Your task to perform on an android device: turn off picture-in-picture Image 0: 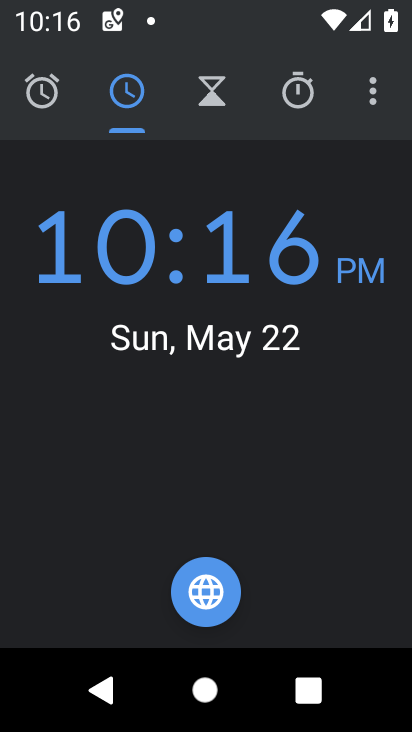
Step 0: press home button
Your task to perform on an android device: turn off picture-in-picture Image 1: 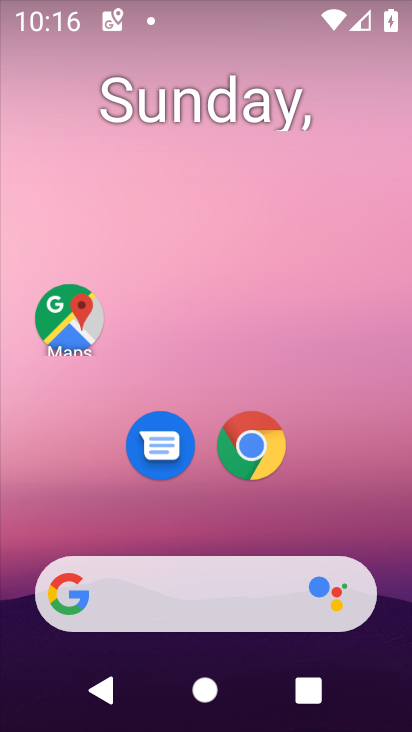
Step 1: click (239, 473)
Your task to perform on an android device: turn off picture-in-picture Image 2: 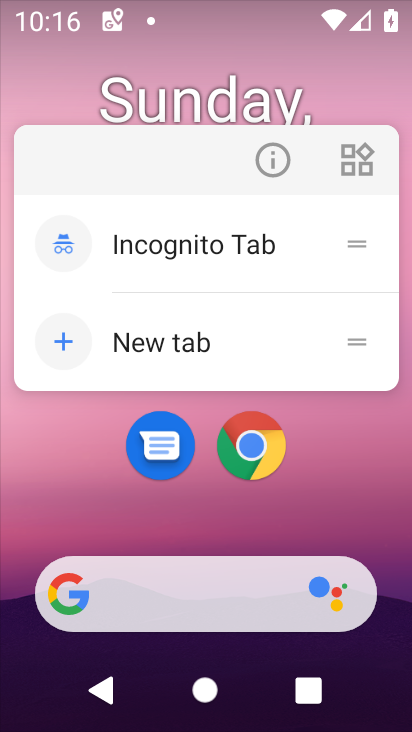
Step 2: click (283, 154)
Your task to perform on an android device: turn off picture-in-picture Image 3: 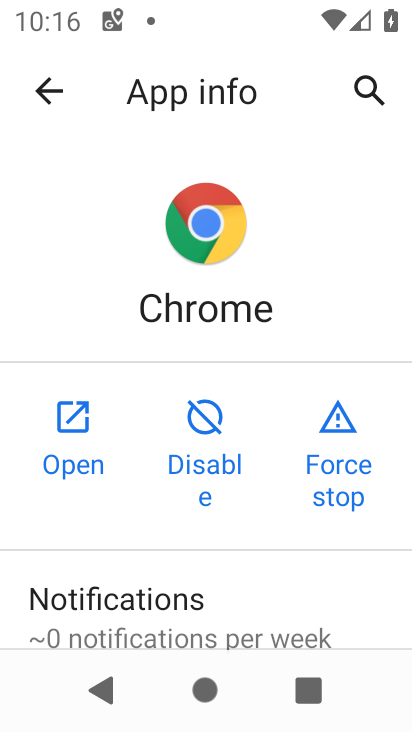
Step 3: drag from (280, 598) to (278, 19)
Your task to perform on an android device: turn off picture-in-picture Image 4: 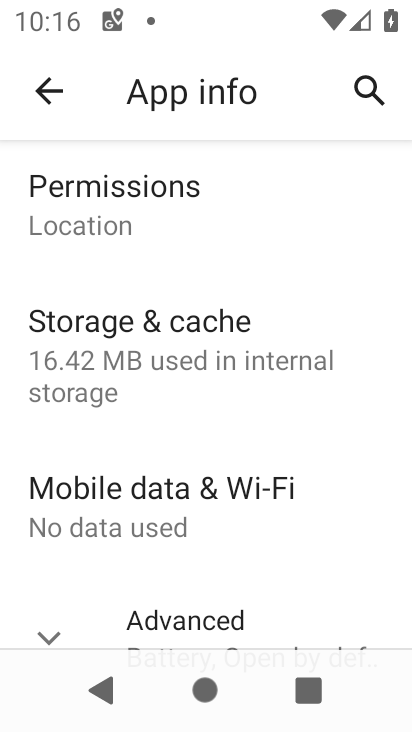
Step 4: drag from (291, 556) to (229, 207)
Your task to perform on an android device: turn off picture-in-picture Image 5: 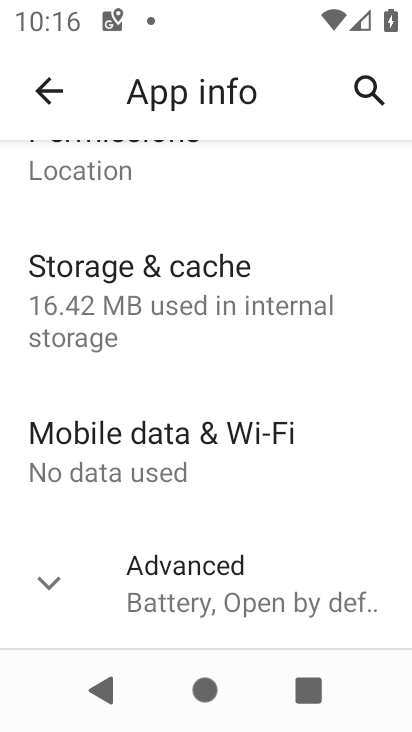
Step 5: click (194, 571)
Your task to perform on an android device: turn off picture-in-picture Image 6: 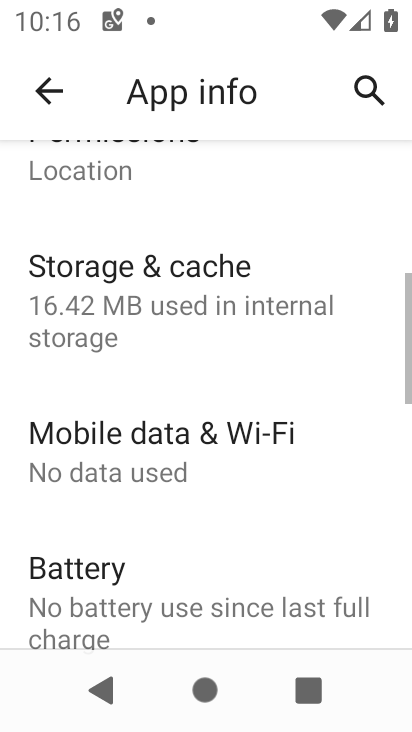
Step 6: drag from (294, 575) to (274, 132)
Your task to perform on an android device: turn off picture-in-picture Image 7: 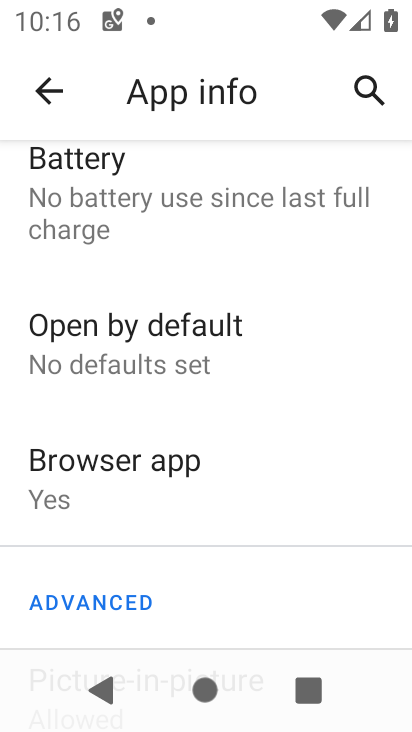
Step 7: drag from (257, 482) to (253, 74)
Your task to perform on an android device: turn off picture-in-picture Image 8: 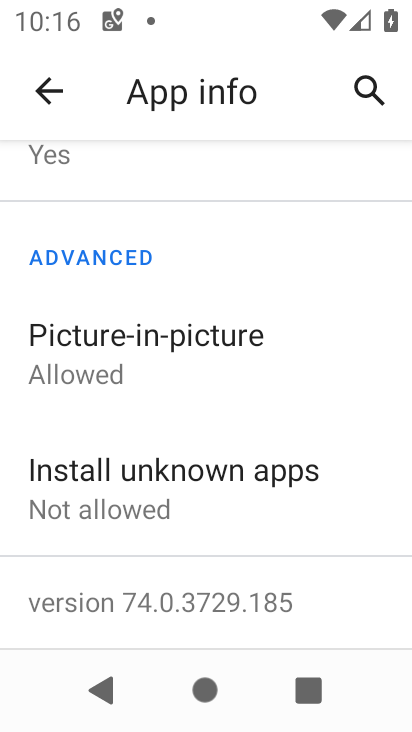
Step 8: click (213, 346)
Your task to perform on an android device: turn off picture-in-picture Image 9: 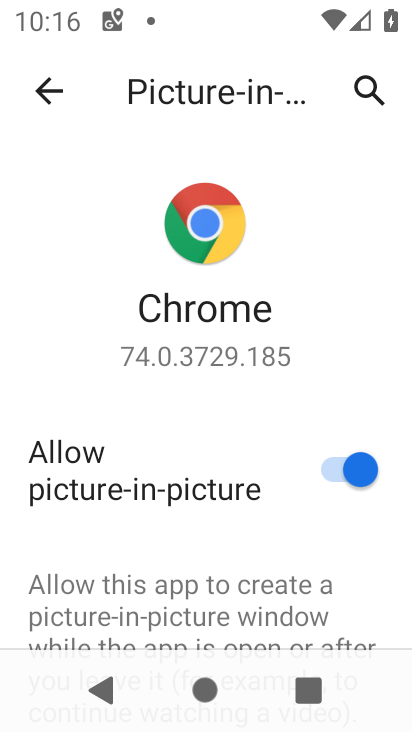
Step 9: click (309, 459)
Your task to perform on an android device: turn off picture-in-picture Image 10: 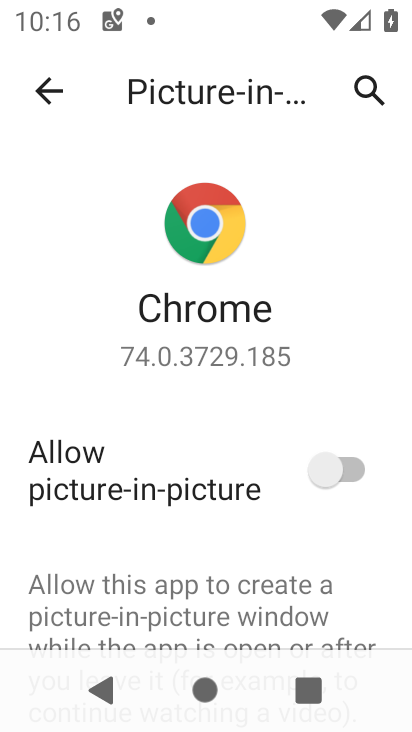
Step 10: task complete